Your task to perform on an android device: empty trash in the gmail app Image 0: 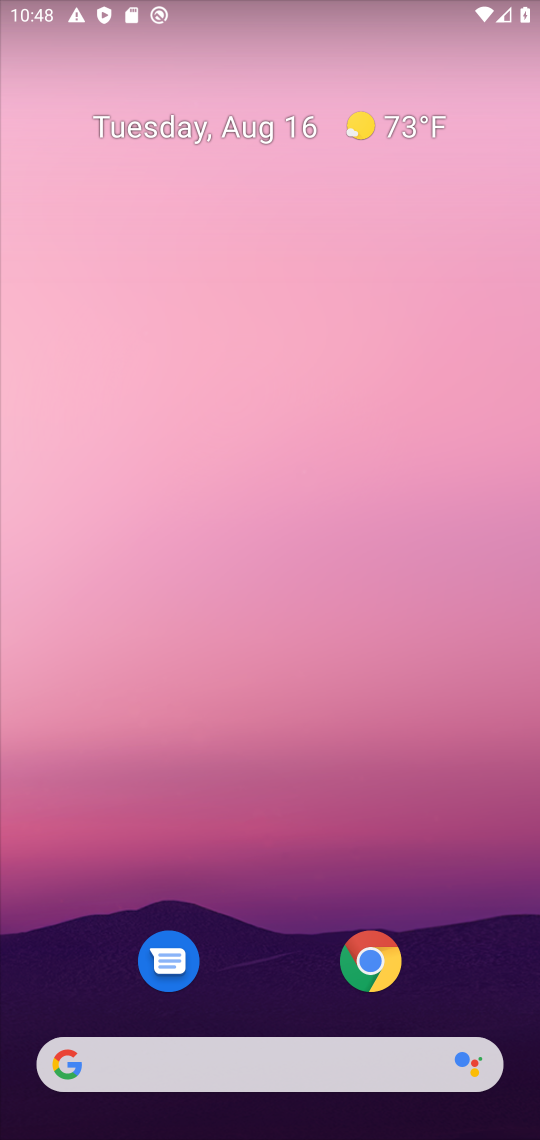
Step 0: drag from (259, 806) to (280, 348)
Your task to perform on an android device: empty trash in the gmail app Image 1: 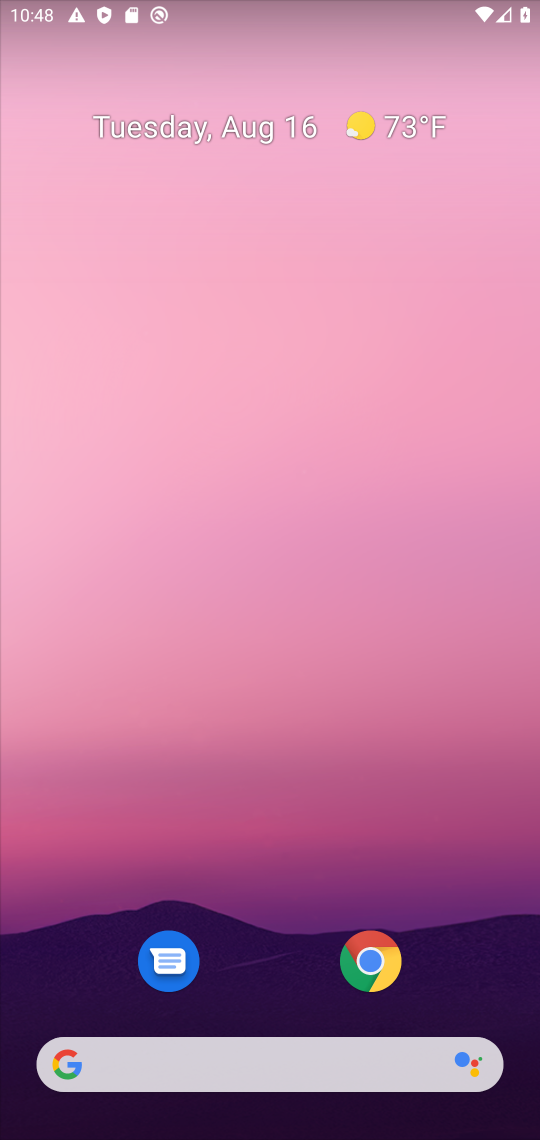
Step 1: click (345, 286)
Your task to perform on an android device: empty trash in the gmail app Image 2: 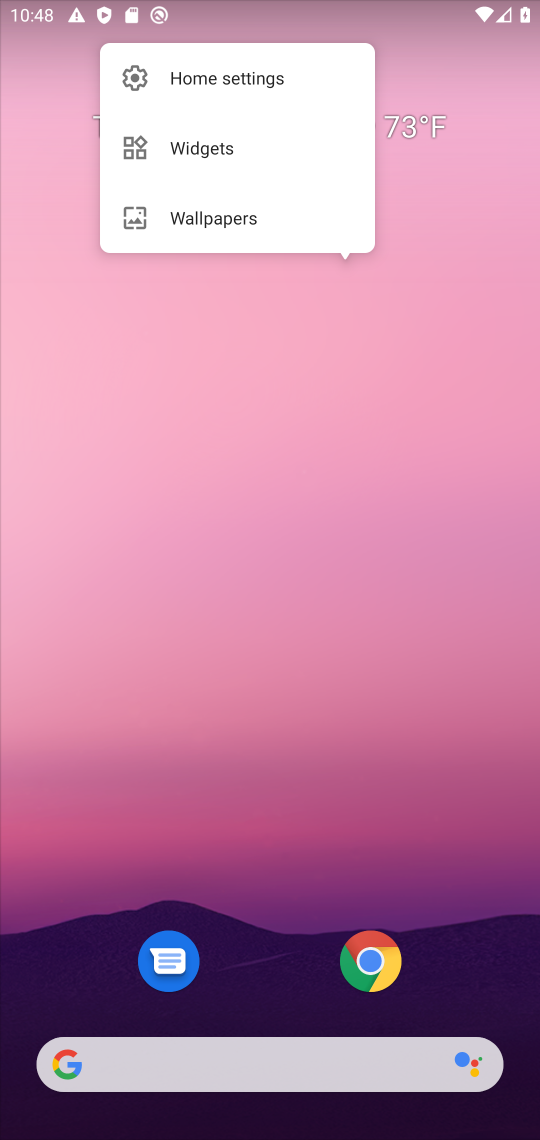
Step 2: task complete